Your task to perform on an android device: turn on showing notifications on the lock screen Image 0: 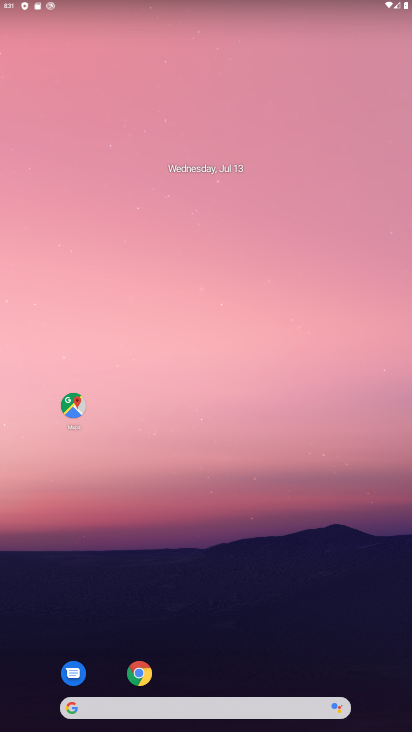
Step 0: drag from (201, 671) to (203, 128)
Your task to perform on an android device: turn on showing notifications on the lock screen Image 1: 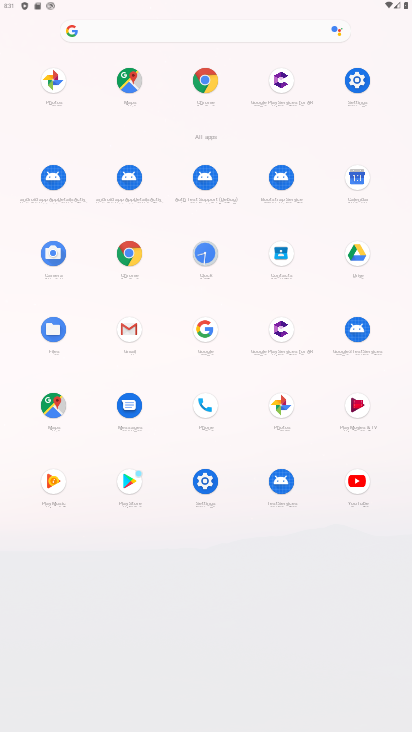
Step 1: click (353, 66)
Your task to perform on an android device: turn on showing notifications on the lock screen Image 2: 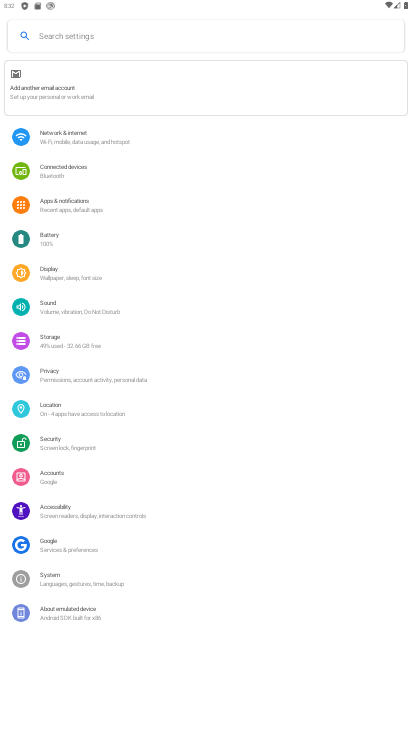
Step 2: click (129, 209)
Your task to perform on an android device: turn on showing notifications on the lock screen Image 3: 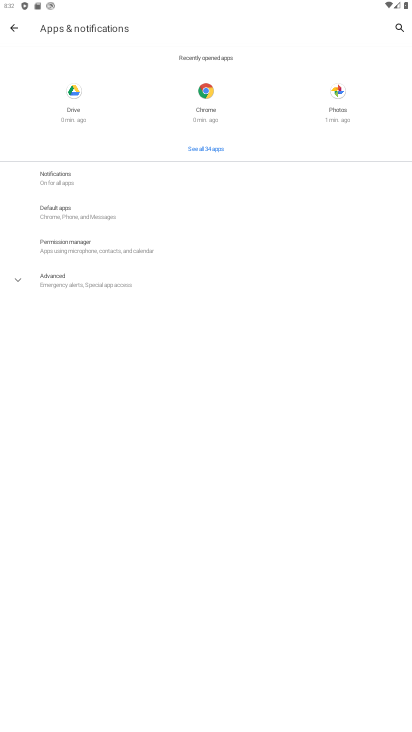
Step 3: click (71, 173)
Your task to perform on an android device: turn on showing notifications on the lock screen Image 4: 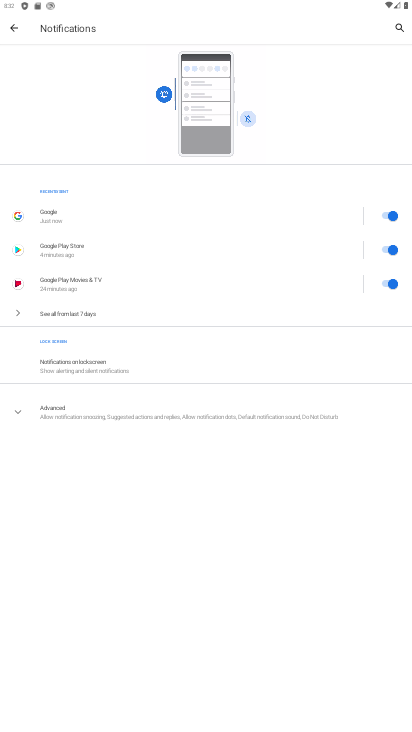
Step 4: click (127, 371)
Your task to perform on an android device: turn on showing notifications on the lock screen Image 5: 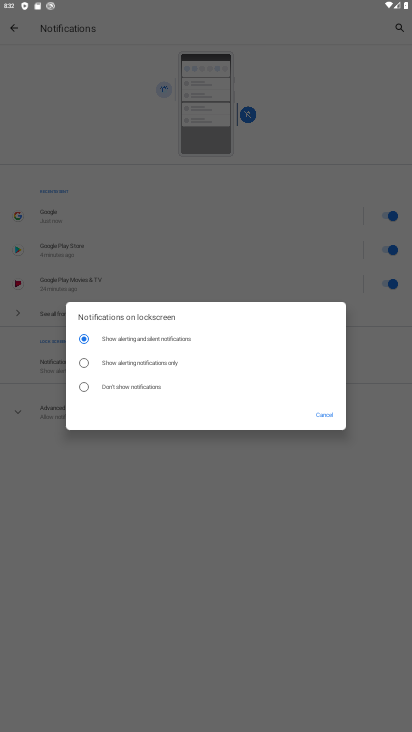
Step 5: task complete